Your task to perform on an android device: turn off airplane mode Image 0: 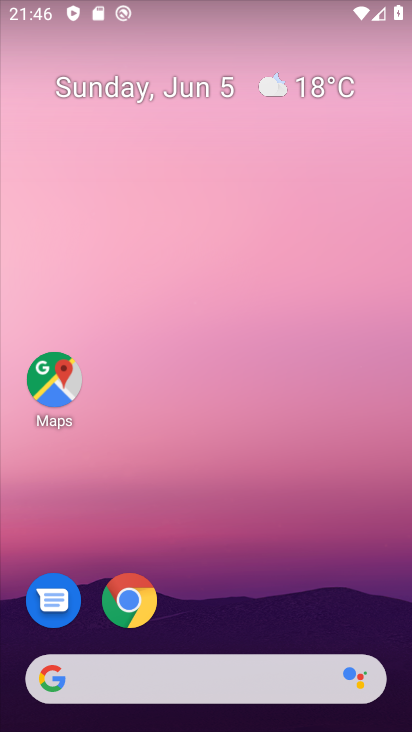
Step 0: drag from (327, 633) to (255, 169)
Your task to perform on an android device: turn off airplane mode Image 1: 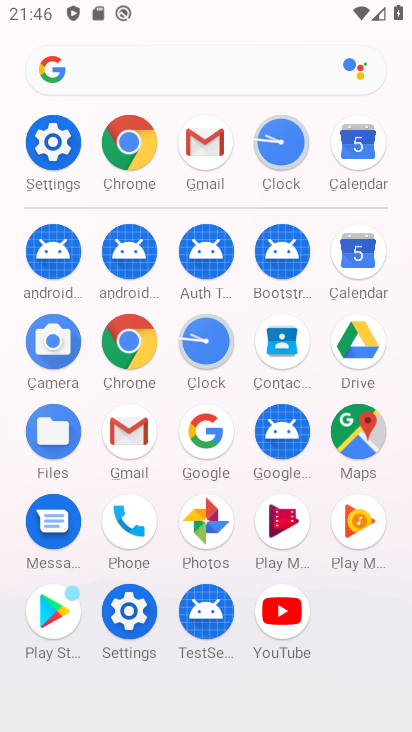
Step 1: click (41, 135)
Your task to perform on an android device: turn off airplane mode Image 2: 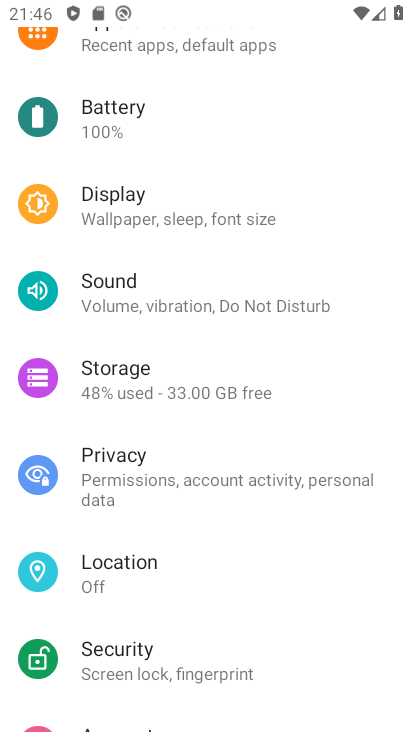
Step 2: drag from (258, 186) to (225, 563)
Your task to perform on an android device: turn off airplane mode Image 3: 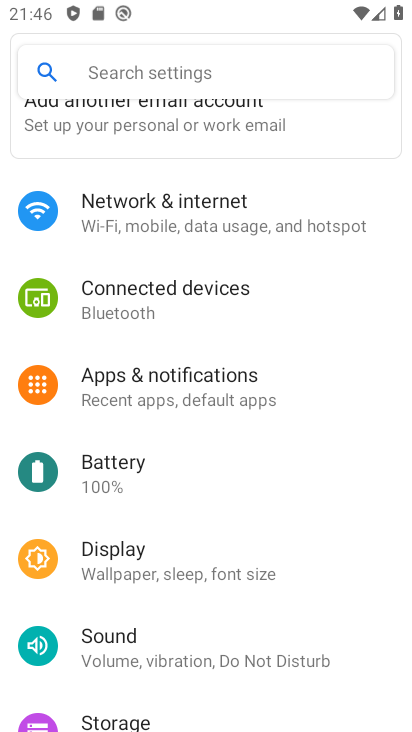
Step 3: click (225, 563)
Your task to perform on an android device: turn off airplane mode Image 4: 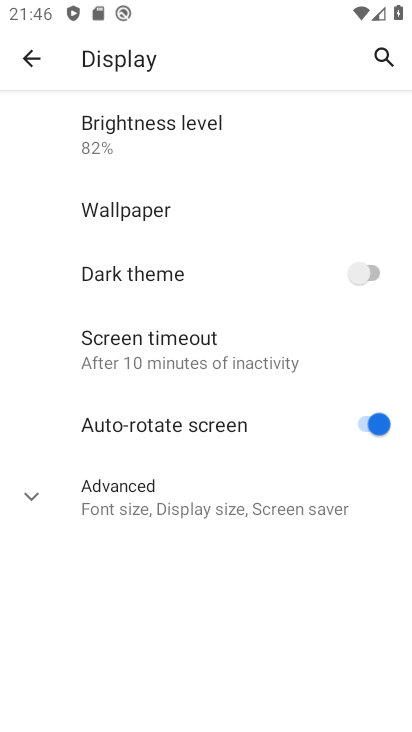
Step 4: click (32, 42)
Your task to perform on an android device: turn off airplane mode Image 5: 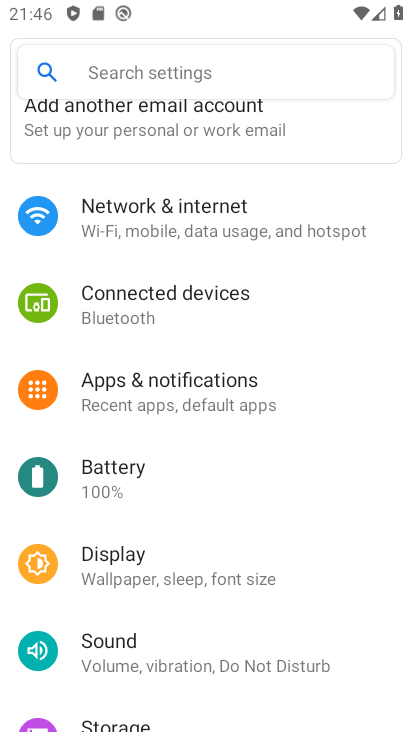
Step 5: click (182, 218)
Your task to perform on an android device: turn off airplane mode Image 6: 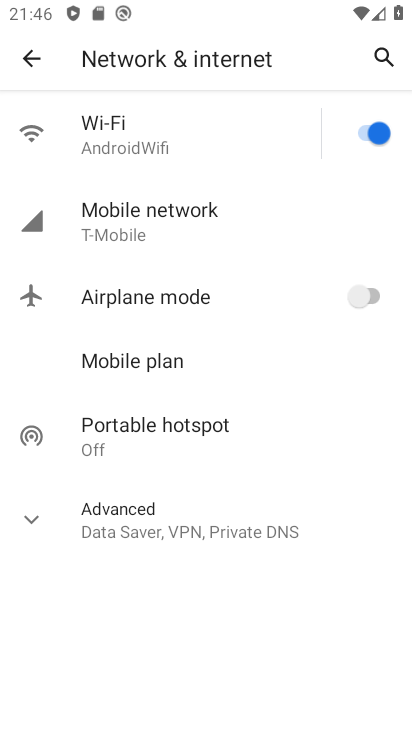
Step 6: task complete